Your task to perform on an android device: delete the emails in spam in the gmail app Image 0: 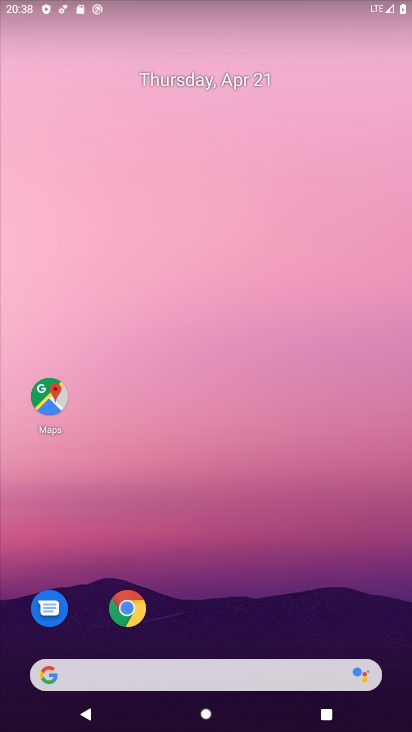
Step 0: drag from (222, 607) to (180, 6)
Your task to perform on an android device: delete the emails in spam in the gmail app Image 1: 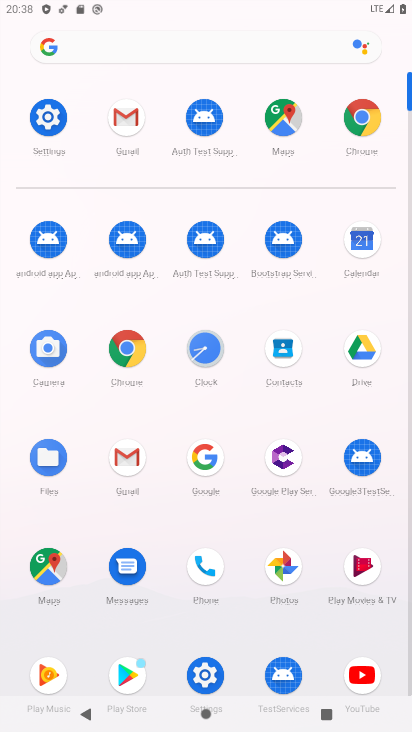
Step 1: click (119, 160)
Your task to perform on an android device: delete the emails in spam in the gmail app Image 2: 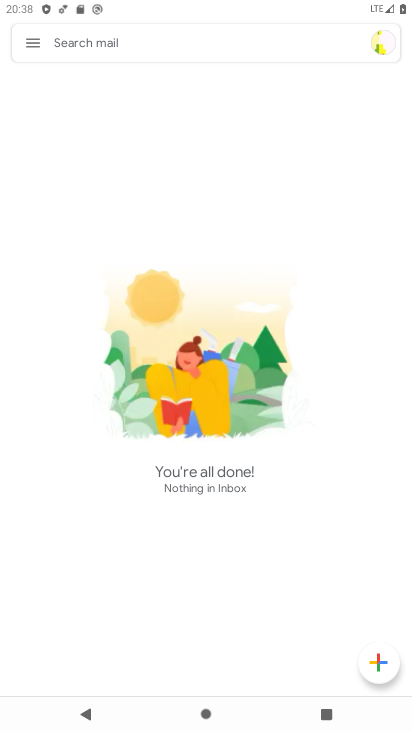
Step 2: click (26, 45)
Your task to perform on an android device: delete the emails in spam in the gmail app Image 3: 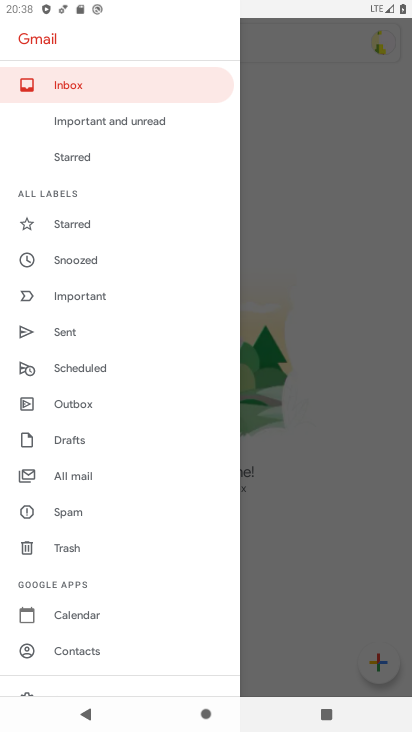
Step 3: click (75, 519)
Your task to perform on an android device: delete the emails in spam in the gmail app Image 4: 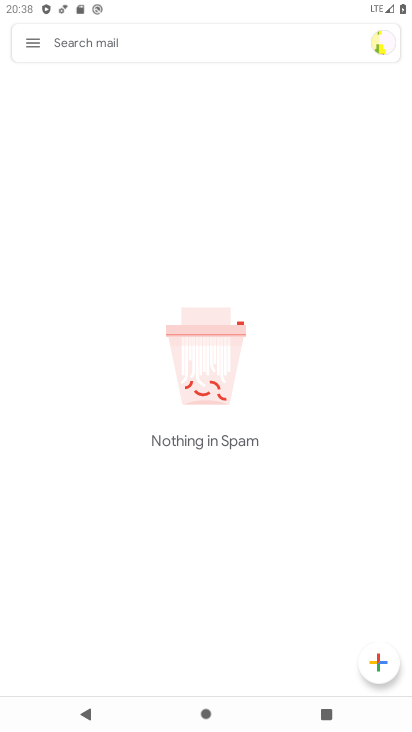
Step 4: task complete